Your task to perform on an android device: Open the stopwatch Image 0: 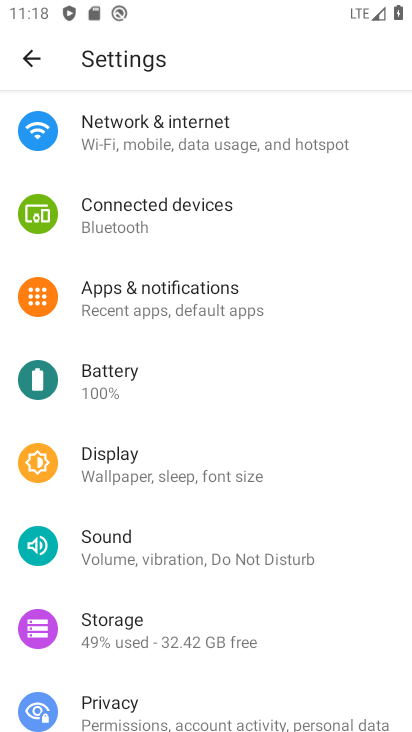
Step 0: press home button
Your task to perform on an android device: Open the stopwatch Image 1: 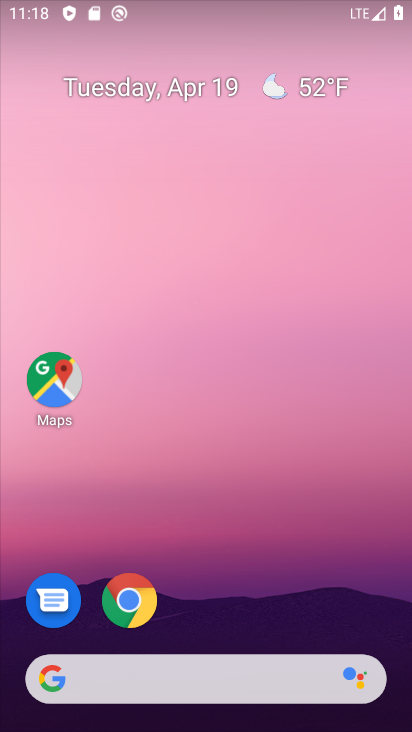
Step 1: drag from (218, 639) to (189, 16)
Your task to perform on an android device: Open the stopwatch Image 2: 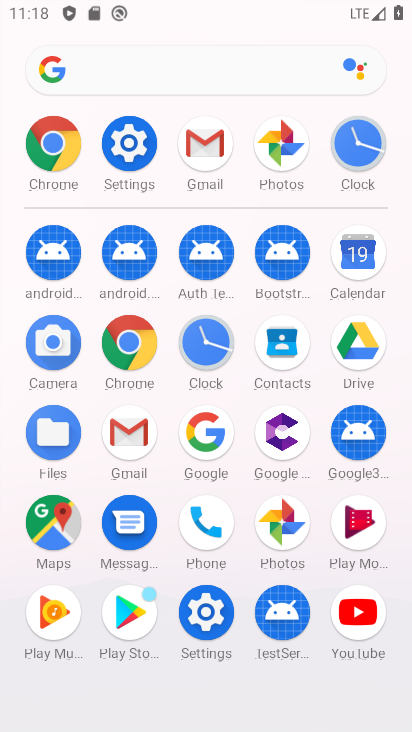
Step 2: click (208, 356)
Your task to perform on an android device: Open the stopwatch Image 3: 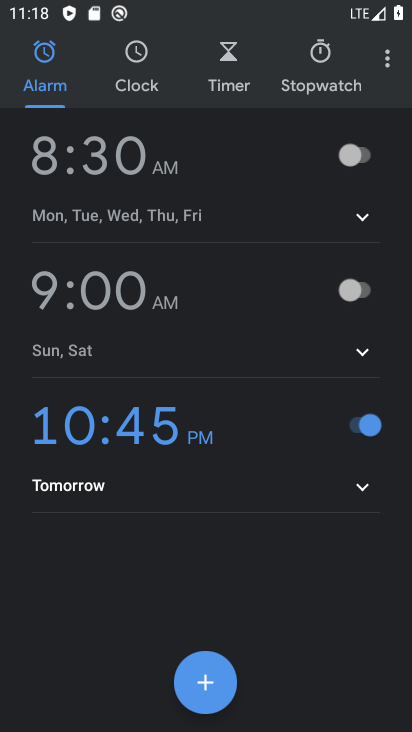
Step 3: click (286, 67)
Your task to perform on an android device: Open the stopwatch Image 4: 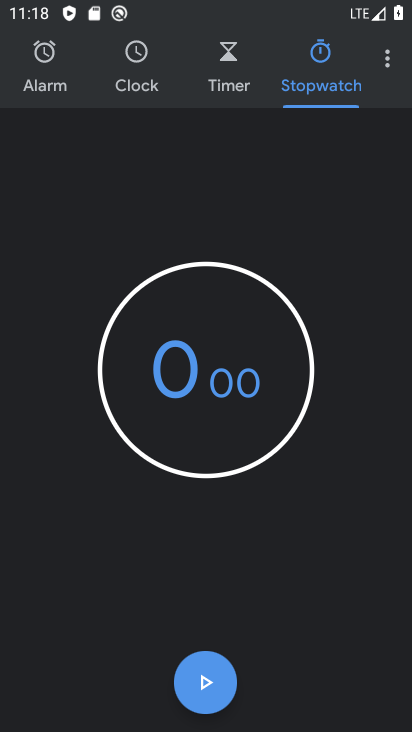
Step 4: click (209, 669)
Your task to perform on an android device: Open the stopwatch Image 5: 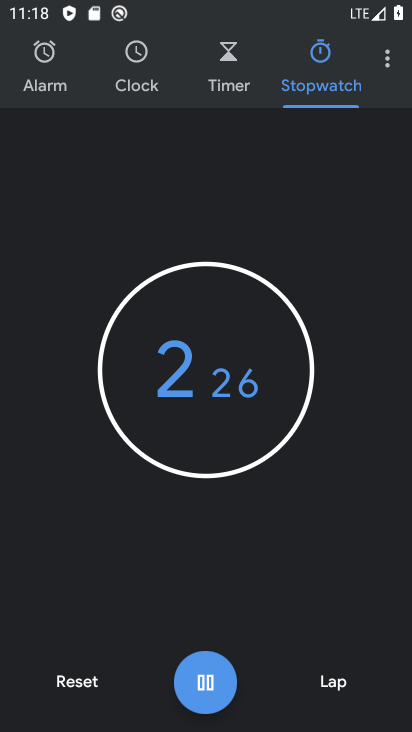
Step 5: click (213, 689)
Your task to perform on an android device: Open the stopwatch Image 6: 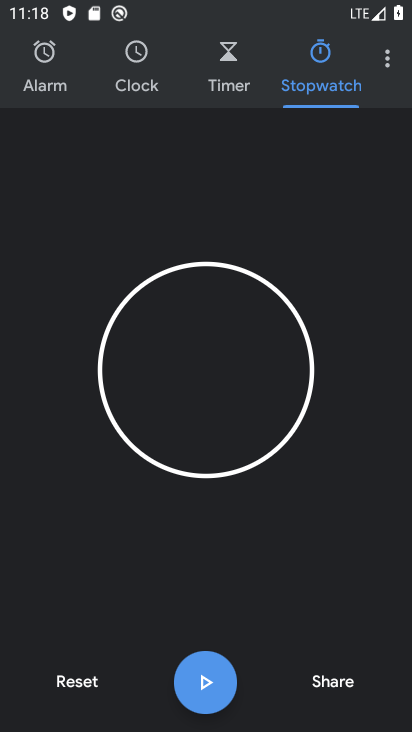
Step 6: task complete